Your task to perform on an android device: How much does the new iPad cost on eBay? Image 0: 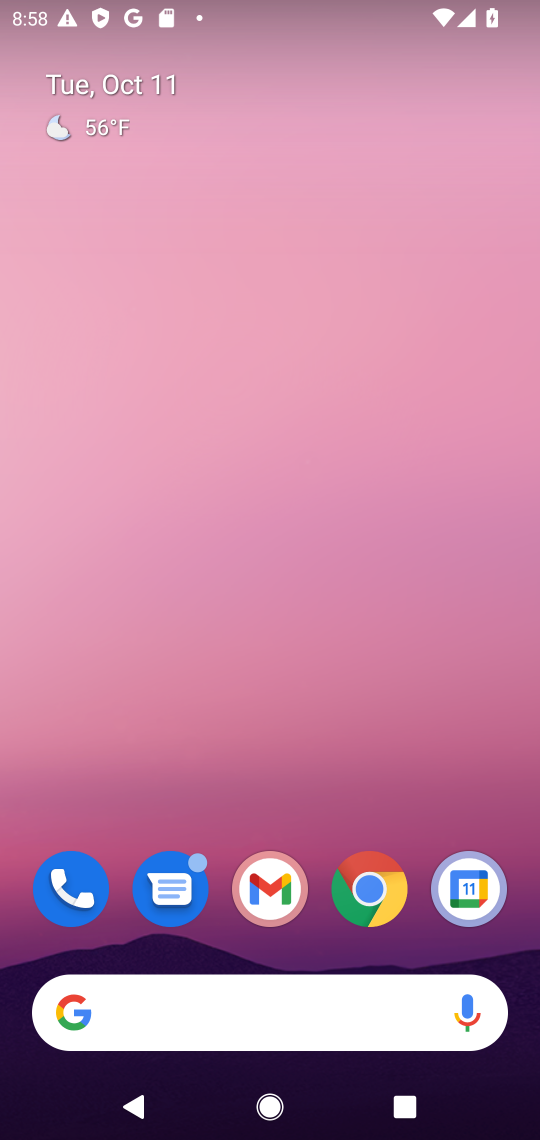
Step 0: click (174, 1003)
Your task to perform on an android device: How much does the new iPad cost on eBay? Image 1: 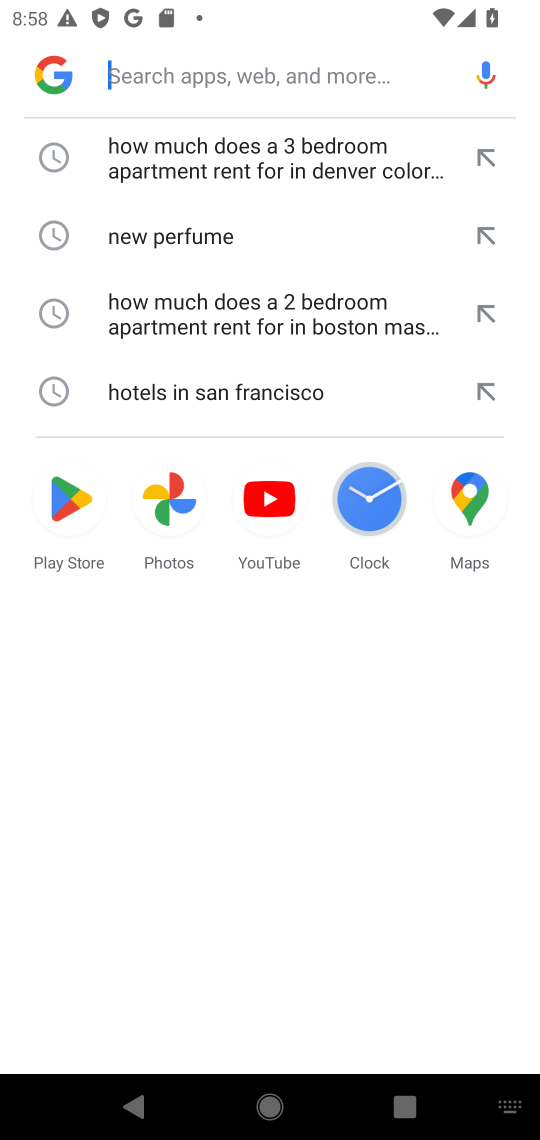
Step 1: click (205, 75)
Your task to perform on an android device: How much does the new iPad cost on eBay? Image 2: 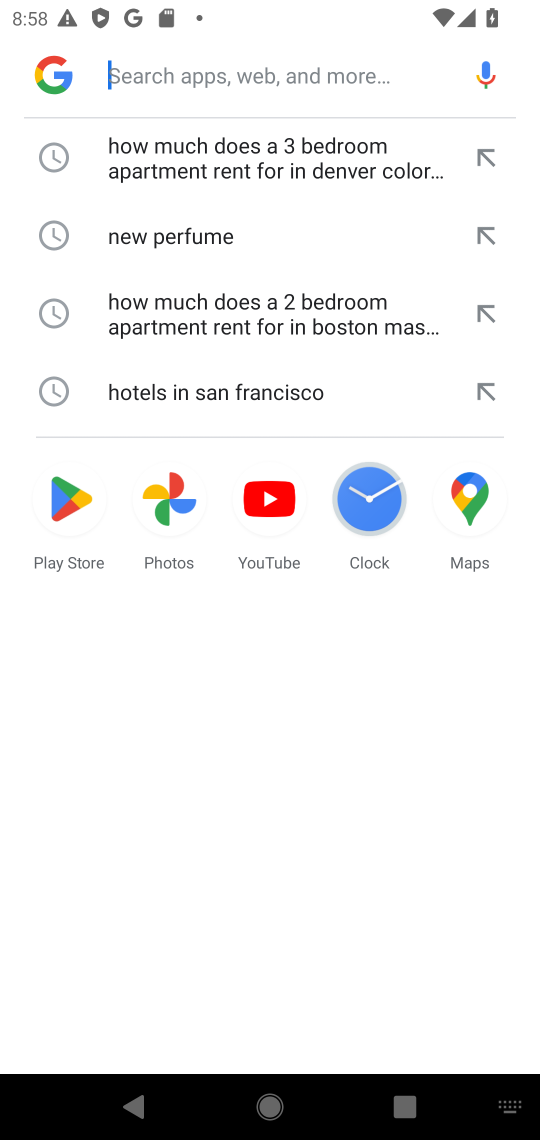
Step 2: type "How much does the new iPad cost on eBay?"
Your task to perform on an android device: How much does the new iPad cost on eBay? Image 3: 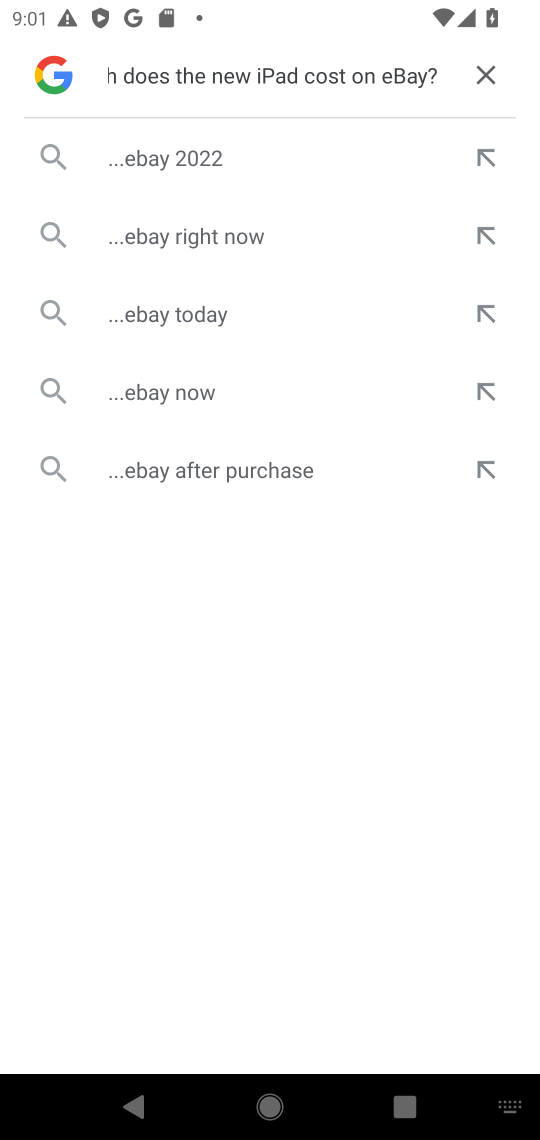
Step 3: click (236, 171)
Your task to perform on an android device: How much does the new iPad cost on eBay? Image 4: 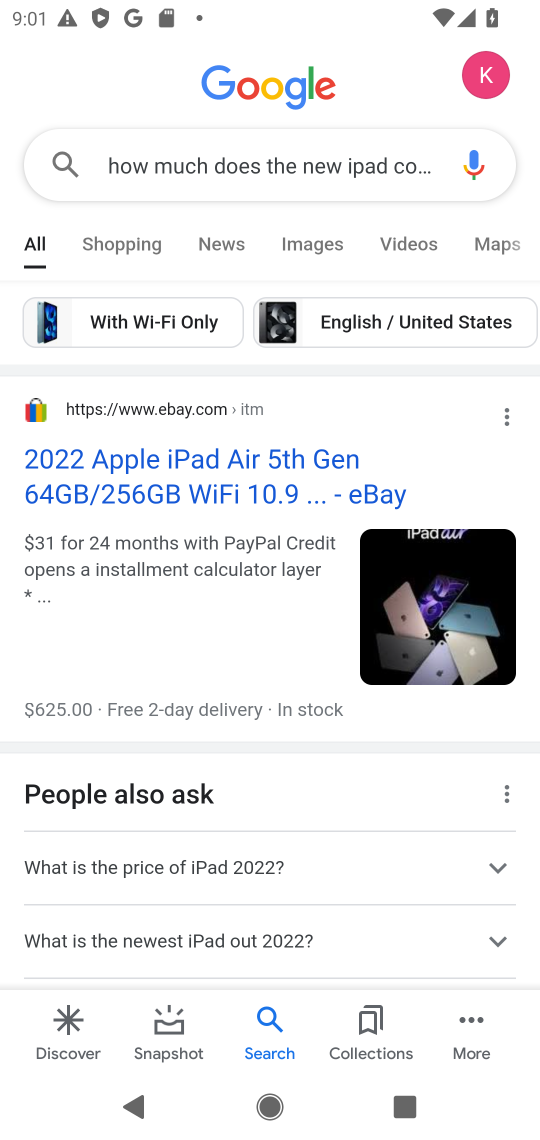
Step 4: task complete